Your task to perform on an android device: turn off notifications in google photos Image 0: 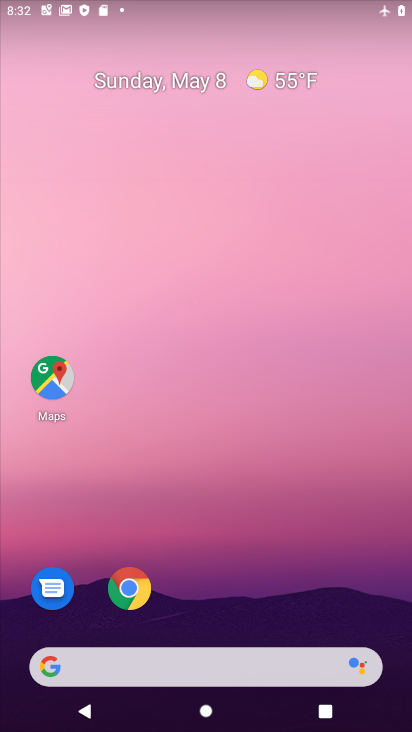
Step 0: drag from (312, 406) to (264, 79)
Your task to perform on an android device: turn off notifications in google photos Image 1: 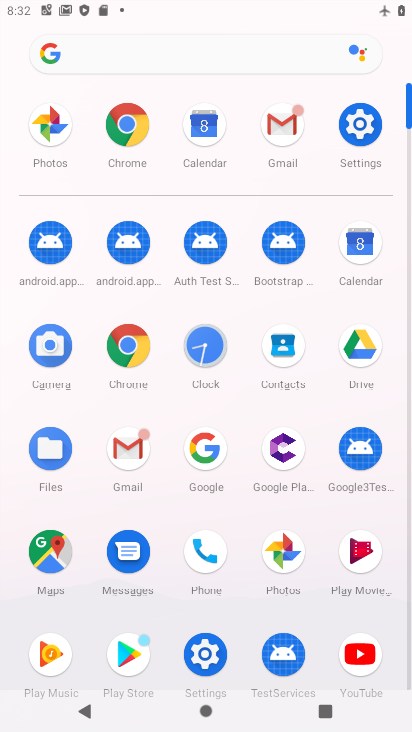
Step 1: click (281, 540)
Your task to perform on an android device: turn off notifications in google photos Image 2: 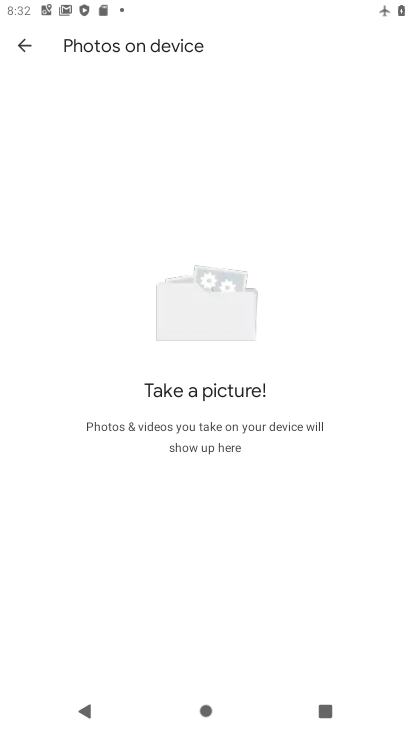
Step 2: click (11, 49)
Your task to perform on an android device: turn off notifications in google photos Image 3: 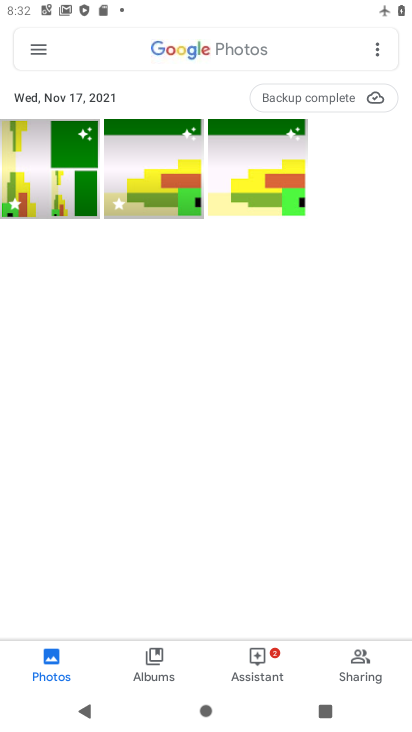
Step 3: click (29, 61)
Your task to perform on an android device: turn off notifications in google photos Image 4: 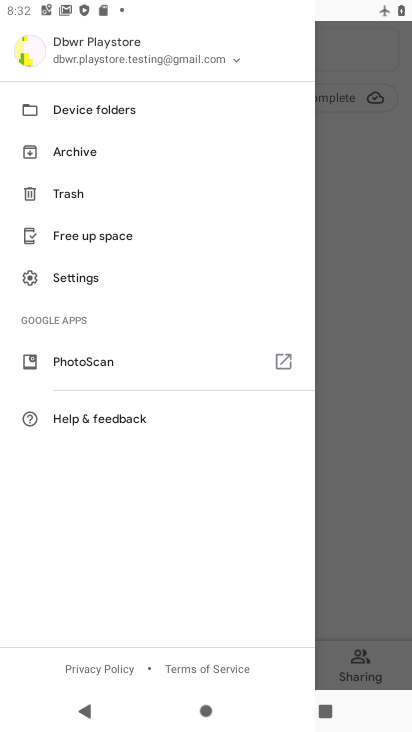
Step 4: click (99, 281)
Your task to perform on an android device: turn off notifications in google photos Image 5: 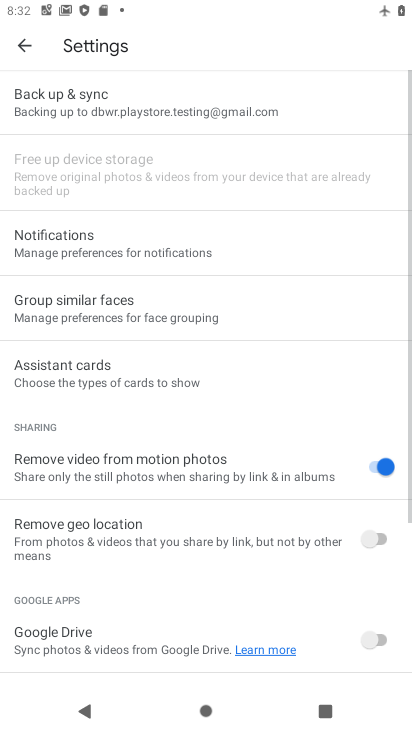
Step 5: click (111, 262)
Your task to perform on an android device: turn off notifications in google photos Image 6: 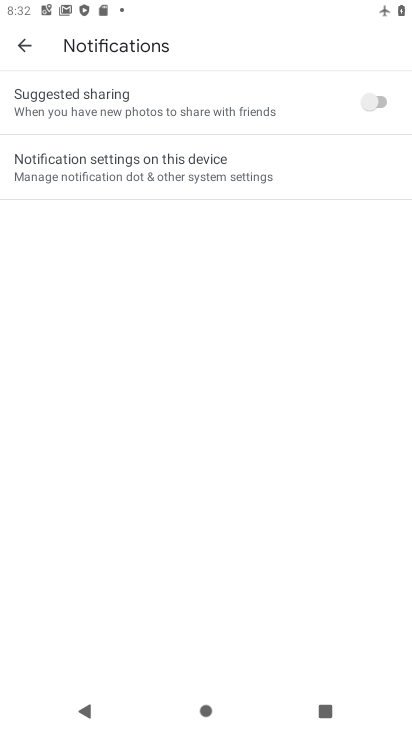
Step 6: task complete